Your task to perform on an android device: turn on sleep mode Image 0: 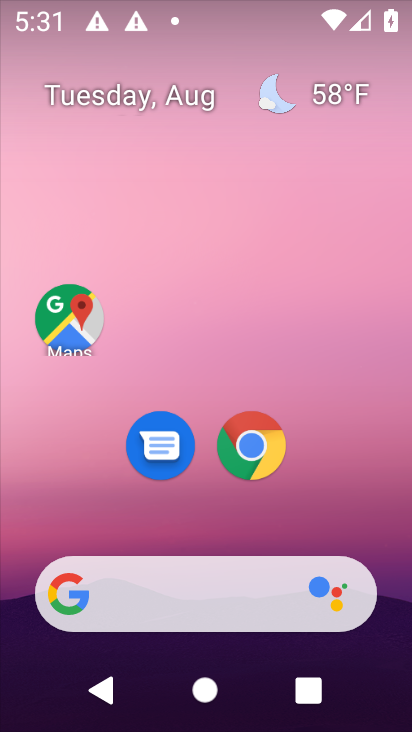
Step 0: drag from (190, 88) to (190, 8)
Your task to perform on an android device: turn on sleep mode Image 1: 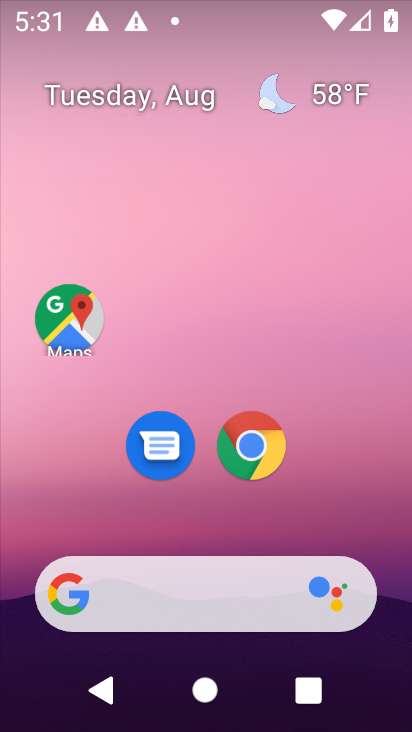
Step 1: drag from (201, 502) to (217, 211)
Your task to perform on an android device: turn on sleep mode Image 2: 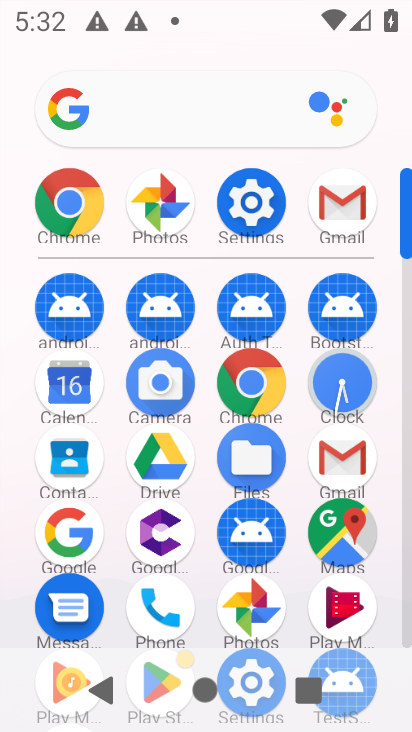
Step 2: click (249, 208)
Your task to perform on an android device: turn on sleep mode Image 3: 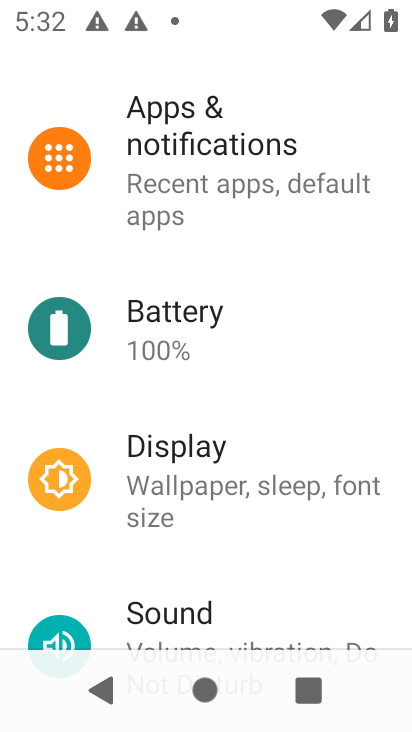
Step 3: task complete